Your task to perform on an android device: install app "Etsy: Buy & Sell Unique Items" Image 0: 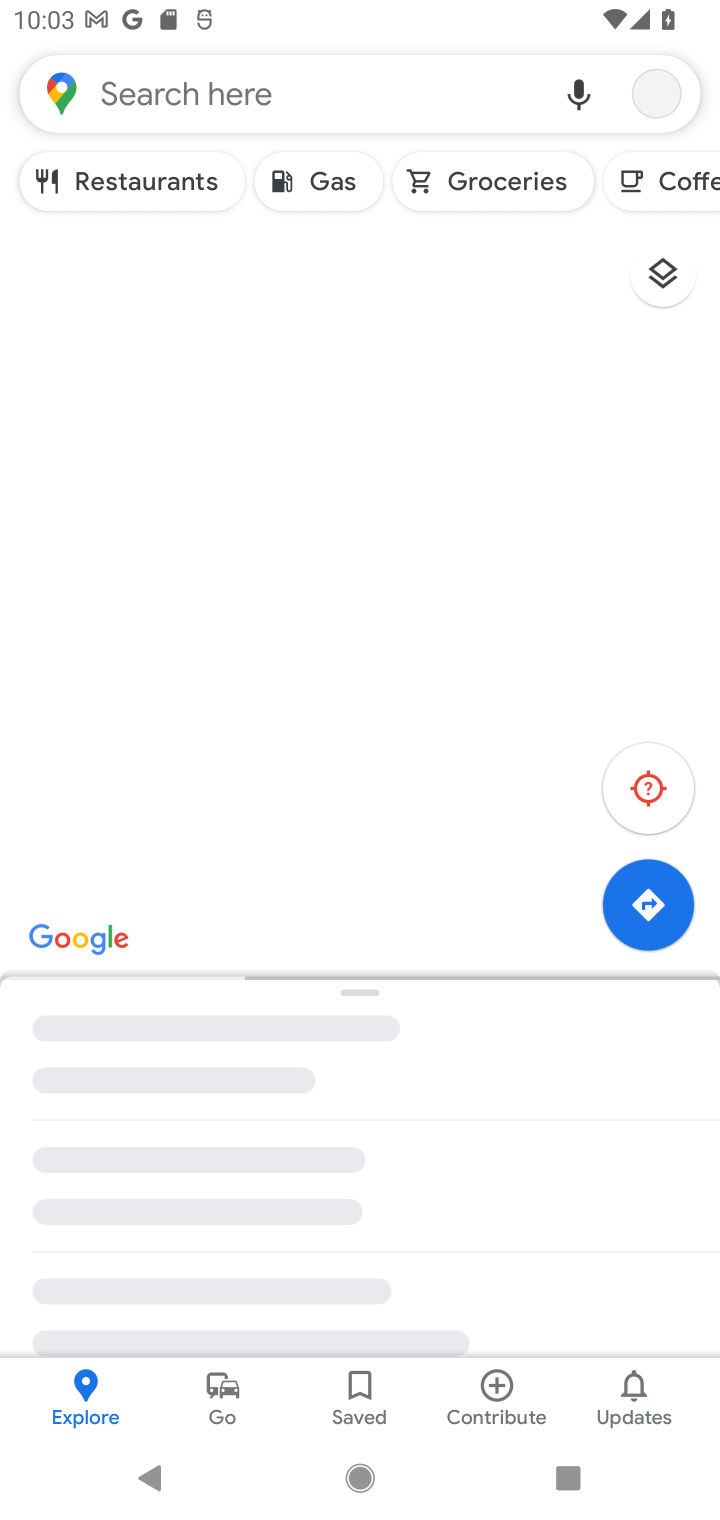
Step 0: press home button
Your task to perform on an android device: install app "Etsy: Buy & Sell Unique Items" Image 1: 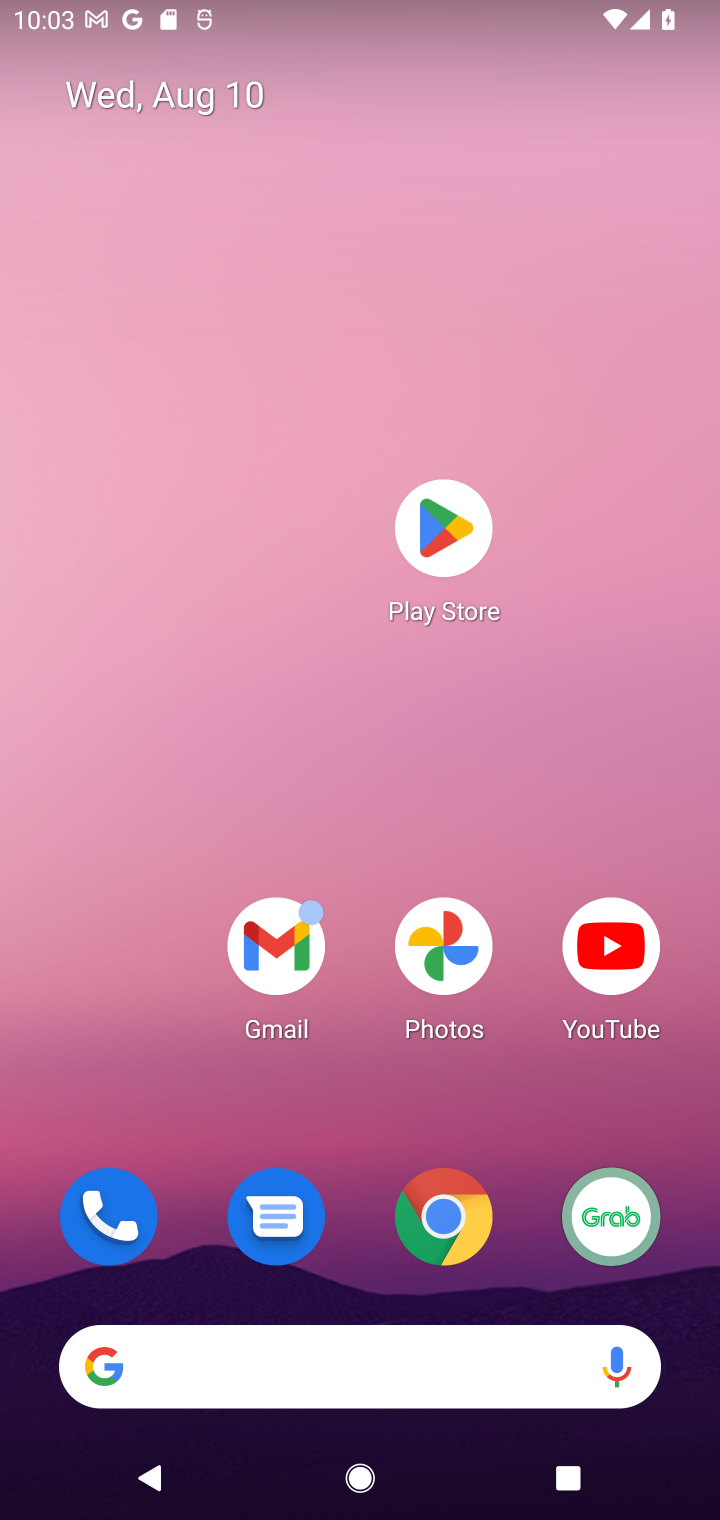
Step 1: click (455, 517)
Your task to perform on an android device: install app "Etsy: Buy & Sell Unique Items" Image 2: 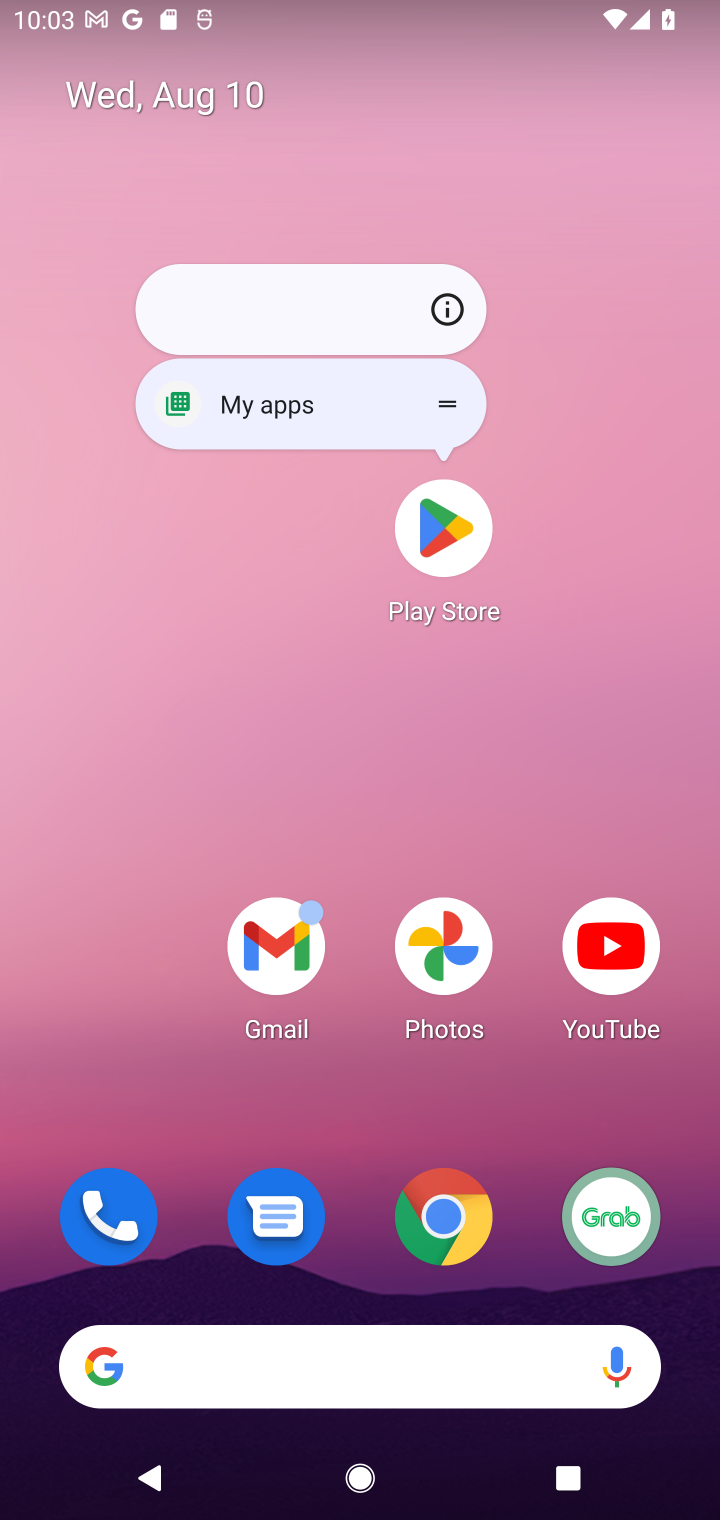
Step 2: click (440, 537)
Your task to perform on an android device: install app "Etsy: Buy & Sell Unique Items" Image 3: 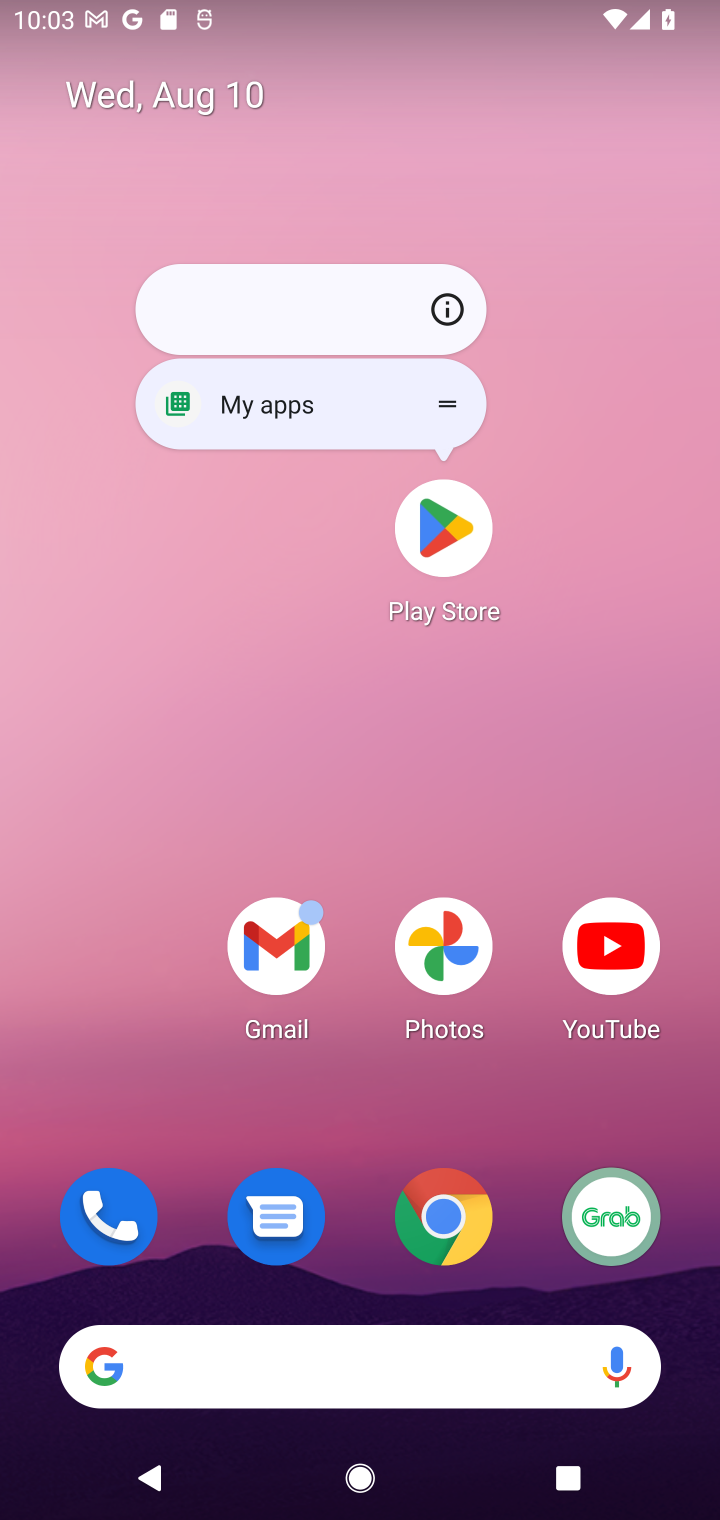
Step 3: click (440, 535)
Your task to perform on an android device: install app "Etsy: Buy & Sell Unique Items" Image 4: 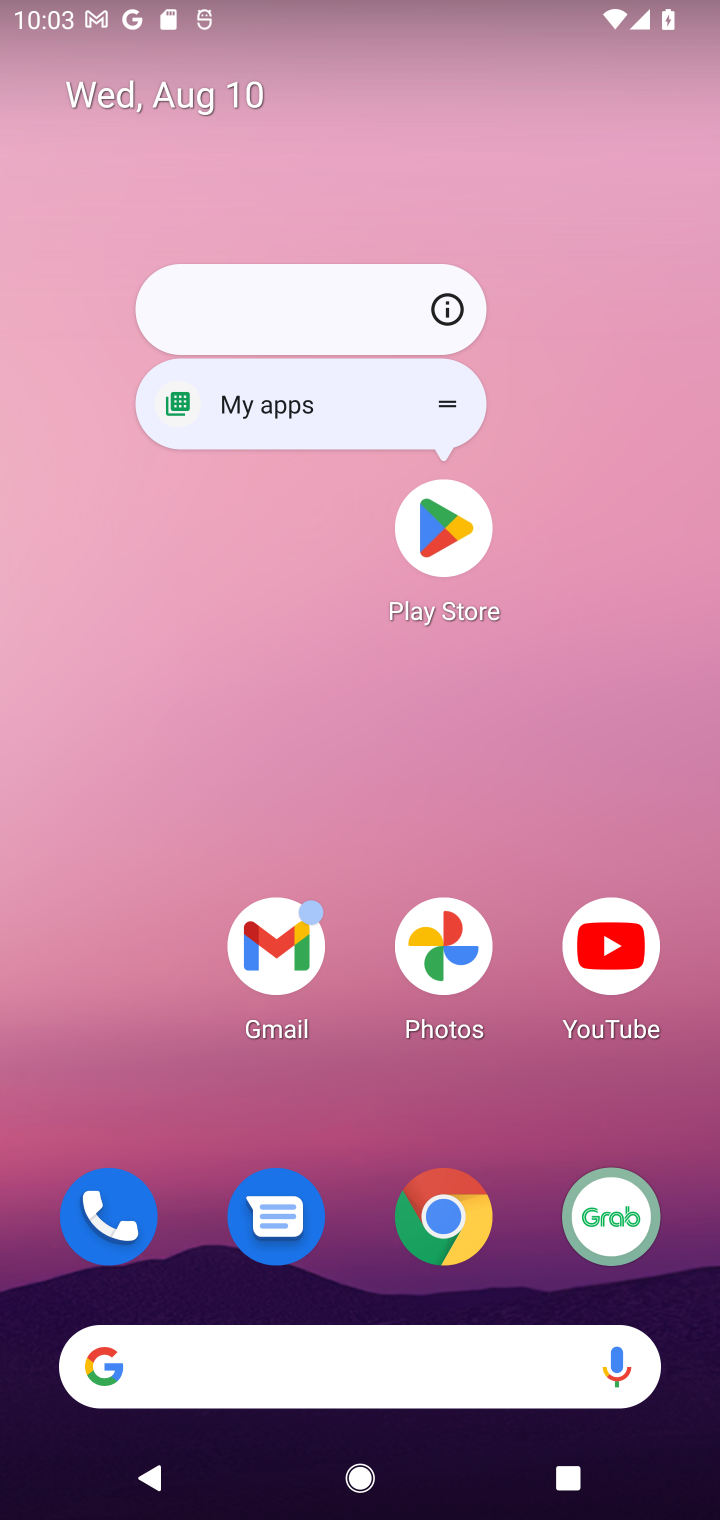
Step 4: click (438, 536)
Your task to perform on an android device: install app "Etsy: Buy & Sell Unique Items" Image 5: 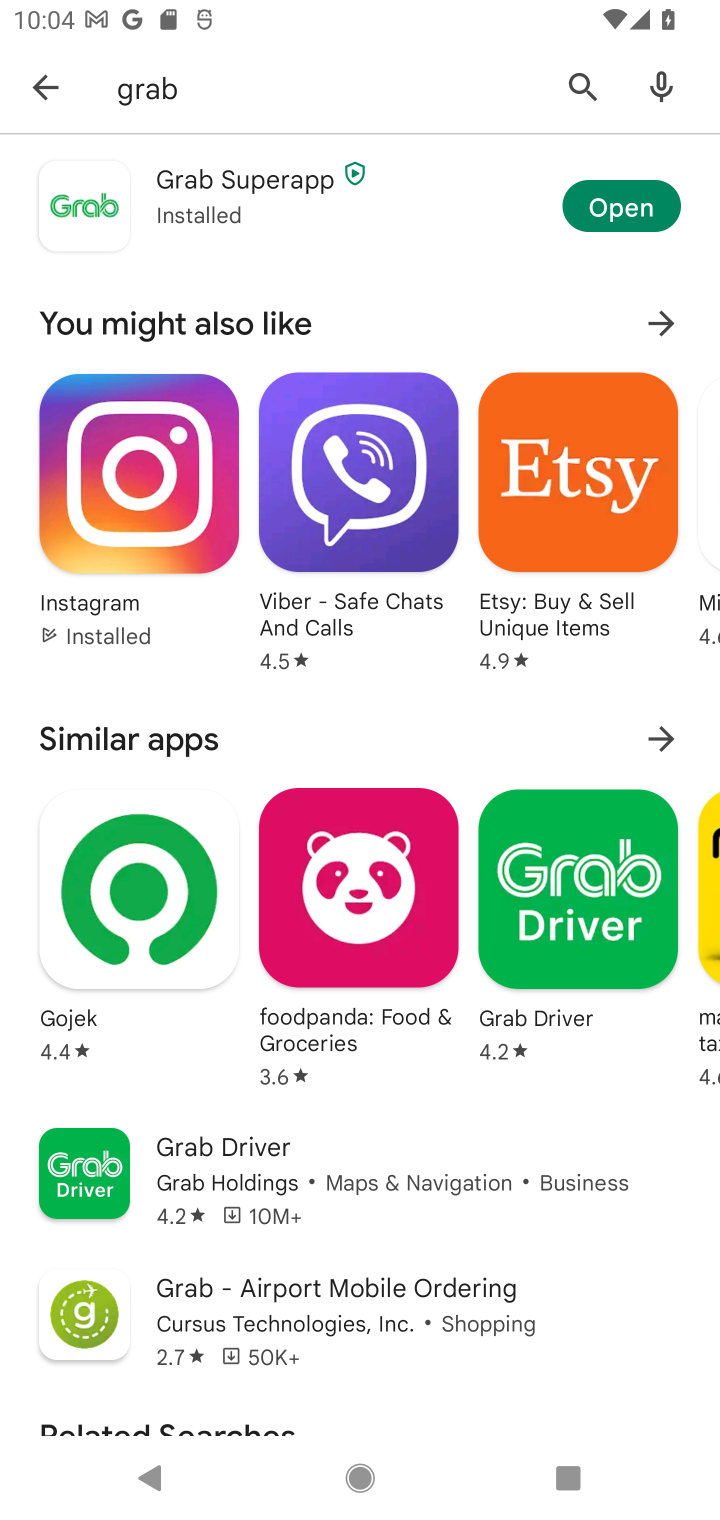
Step 5: click (578, 89)
Your task to perform on an android device: install app "Etsy: Buy & Sell Unique Items" Image 6: 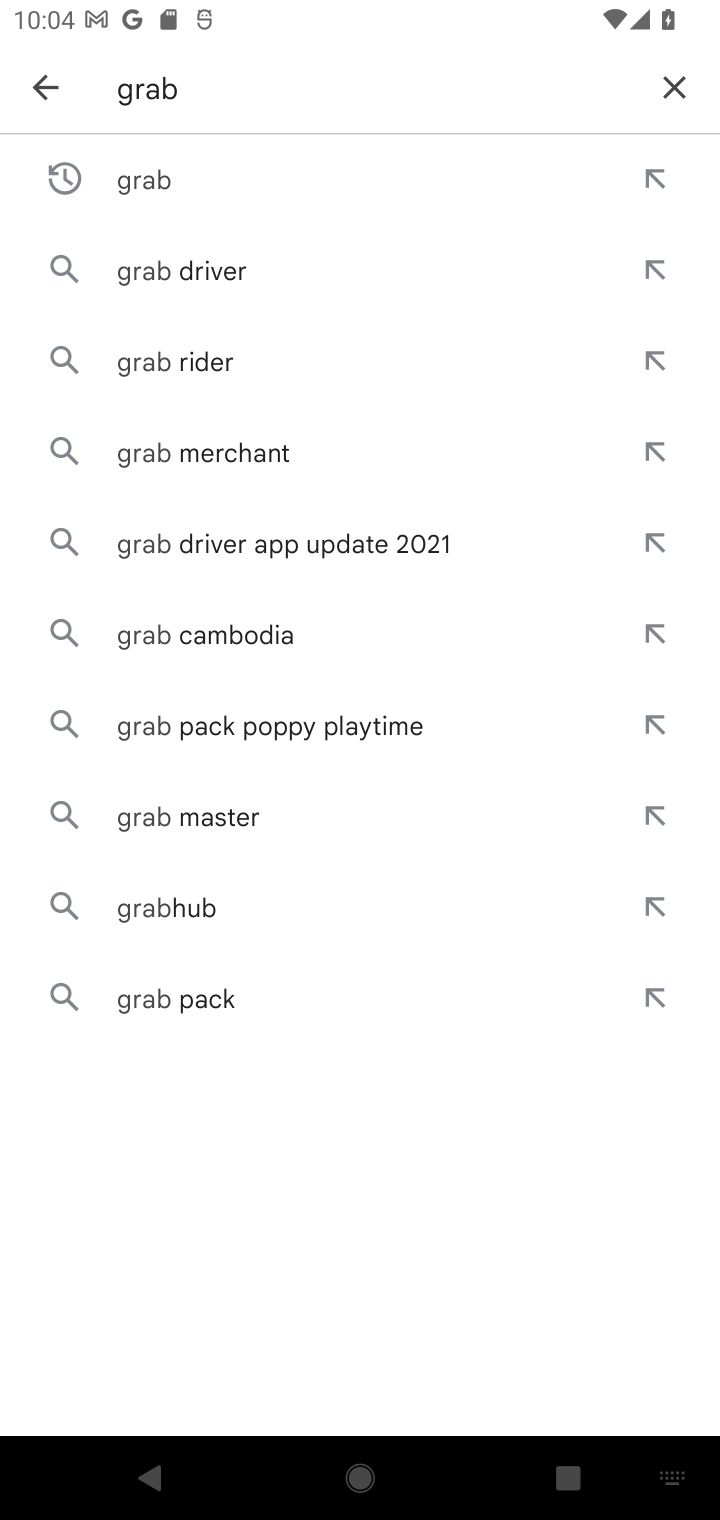
Step 6: click (661, 80)
Your task to perform on an android device: install app "Etsy: Buy & Sell Unique Items" Image 7: 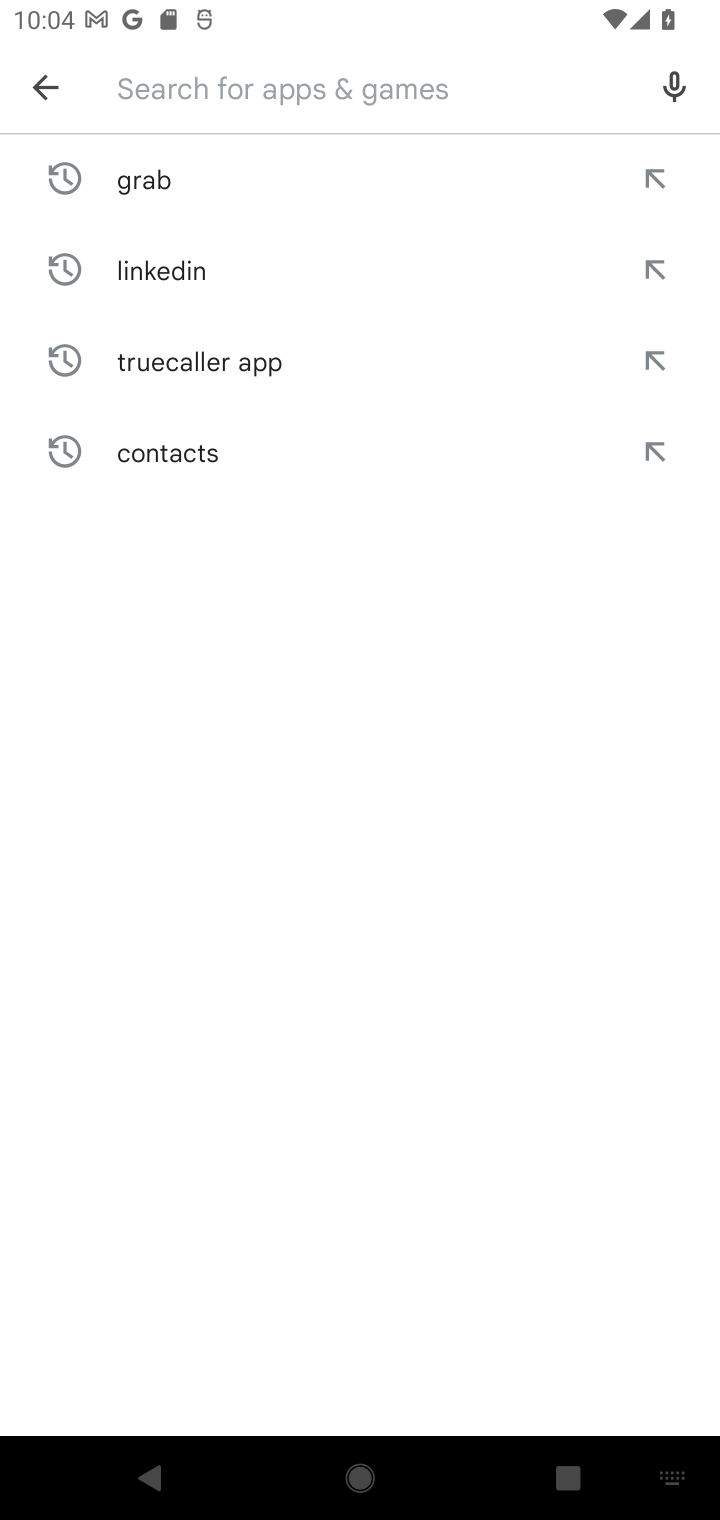
Step 7: type "Etsy: Buy & Sell Unique Items"
Your task to perform on an android device: install app "Etsy: Buy & Sell Unique Items" Image 8: 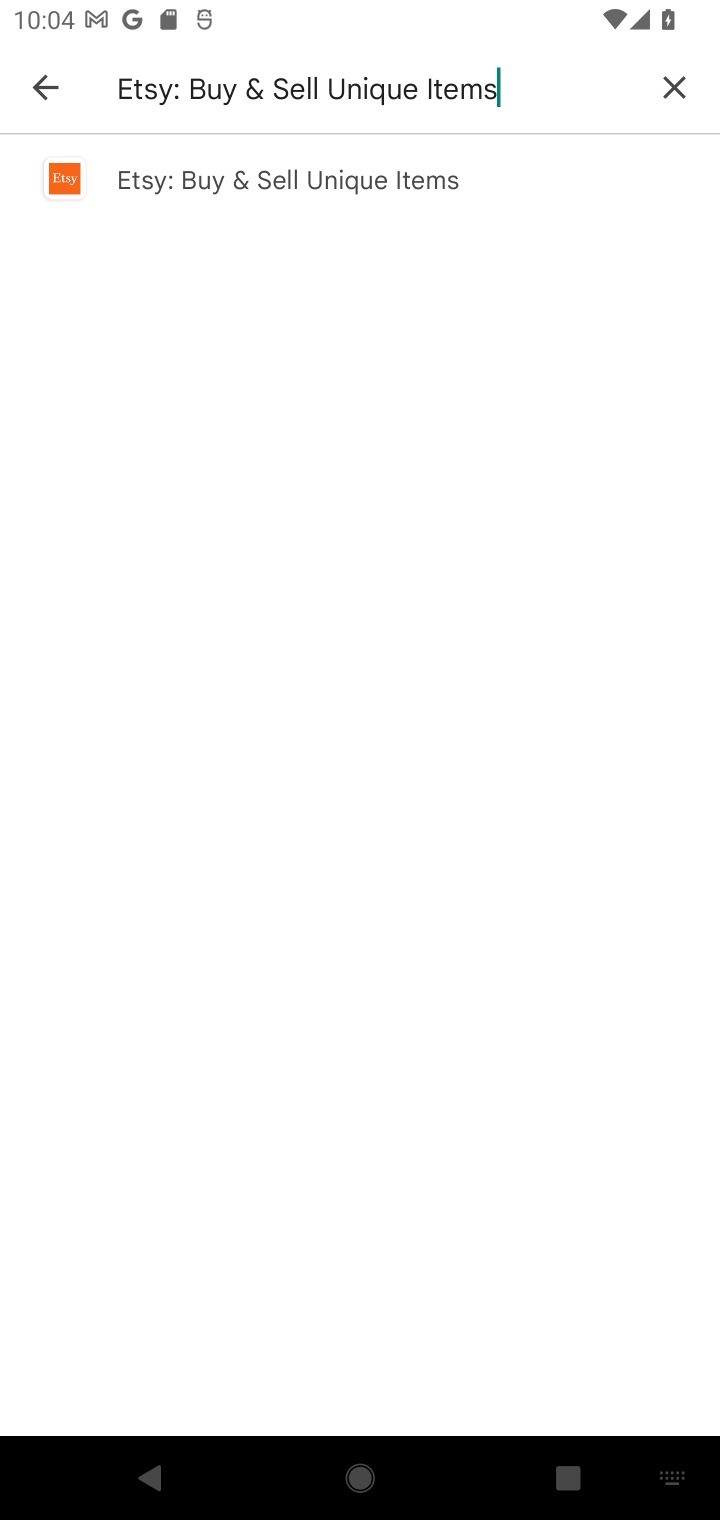
Step 8: click (352, 179)
Your task to perform on an android device: install app "Etsy: Buy & Sell Unique Items" Image 9: 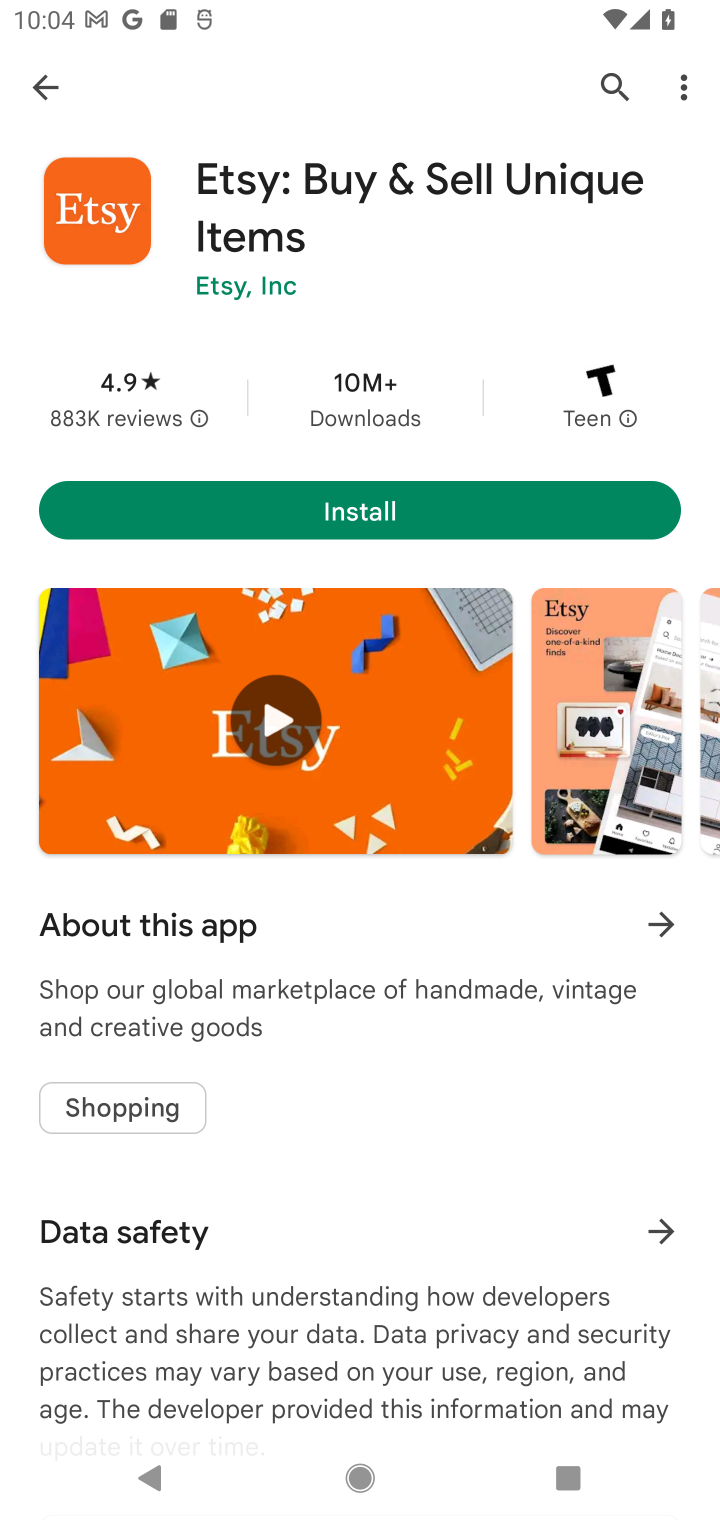
Step 9: click (366, 525)
Your task to perform on an android device: install app "Etsy: Buy & Sell Unique Items" Image 10: 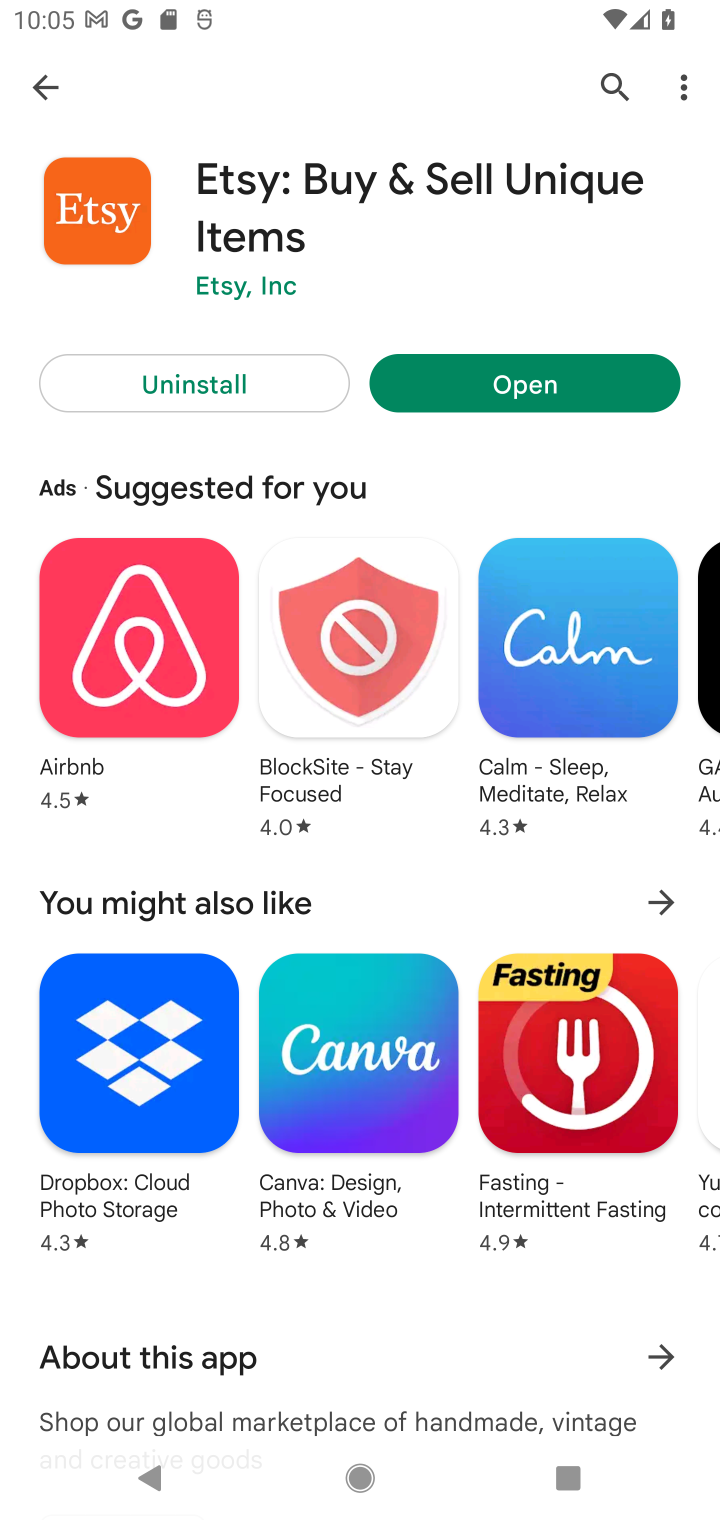
Step 10: task complete